Your task to perform on an android device: see creations saved in the google photos Image 0: 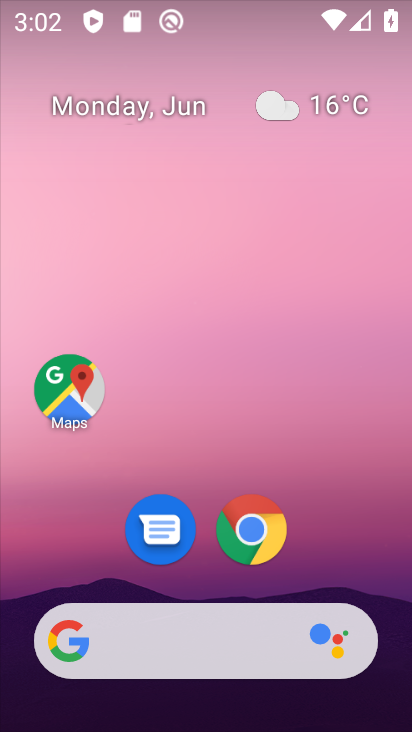
Step 0: click (222, 110)
Your task to perform on an android device: see creations saved in the google photos Image 1: 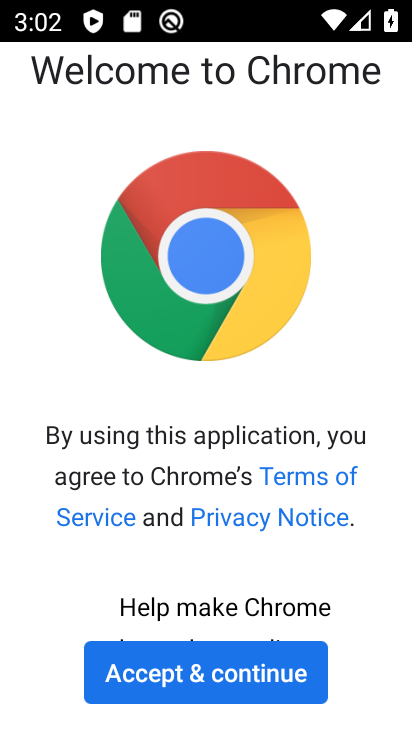
Step 1: click (207, 698)
Your task to perform on an android device: see creations saved in the google photos Image 2: 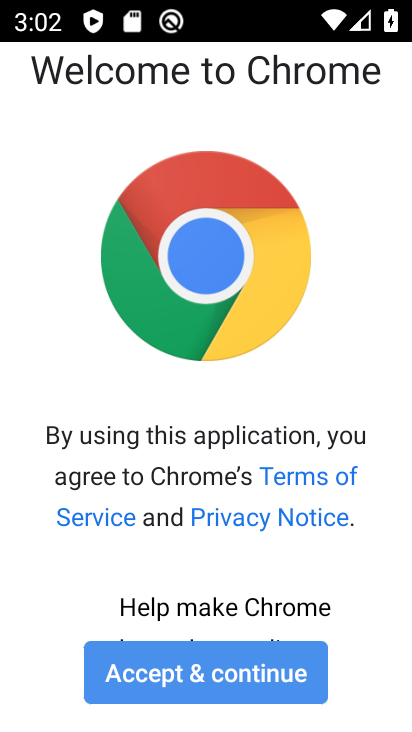
Step 2: click (206, 687)
Your task to perform on an android device: see creations saved in the google photos Image 3: 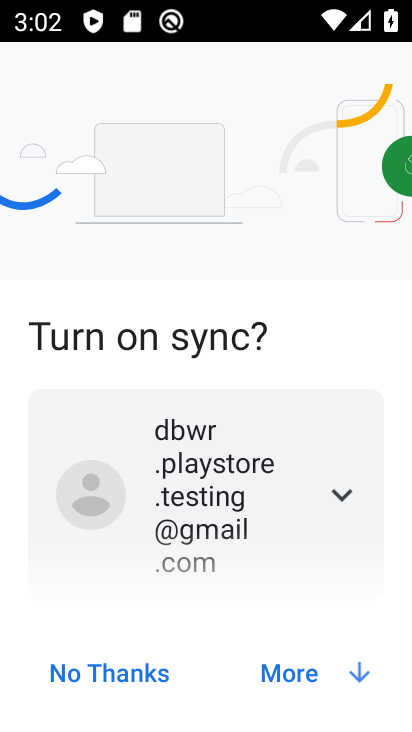
Step 3: click (207, 688)
Your task to perform on an android device: see creations saved in the google photos Image 4: 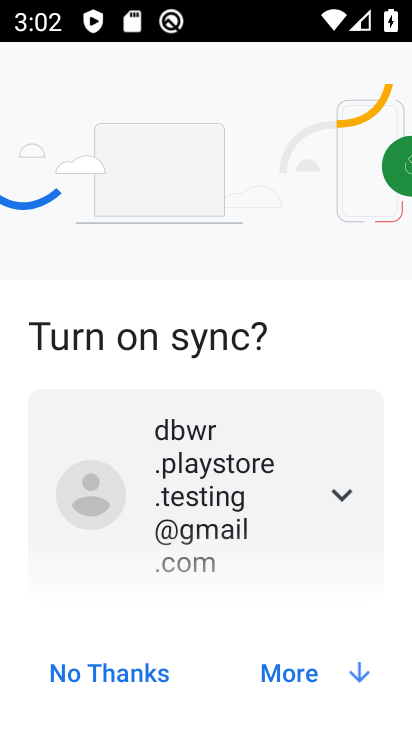
Step 4: click (212, 680)
Your task to perform on an android device: see creations saved in the google photos Image 5: 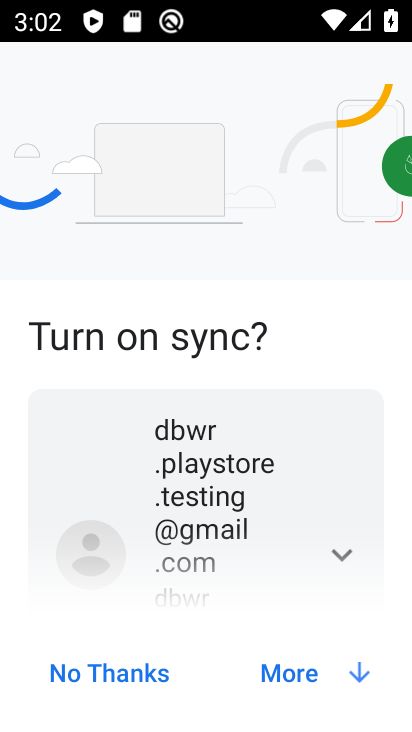
Step 5: press back button
Your task to perform on an android device: see creations saved in the google photos Image 6: 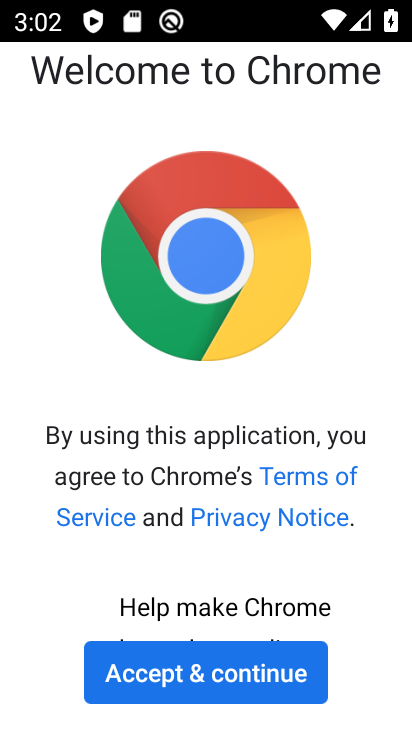
Step 6: press back button
Your task to perform on an android device: see creations saved in the google photos Image 7: 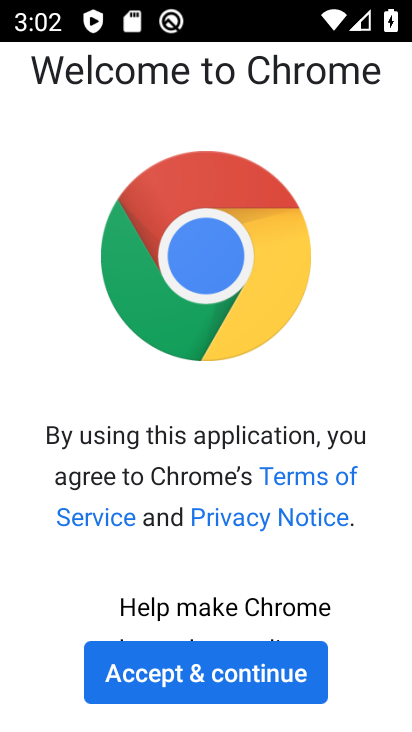
Step 7: press back button
Your task to perform on an android device: see creations saved in the google photos Image 8: 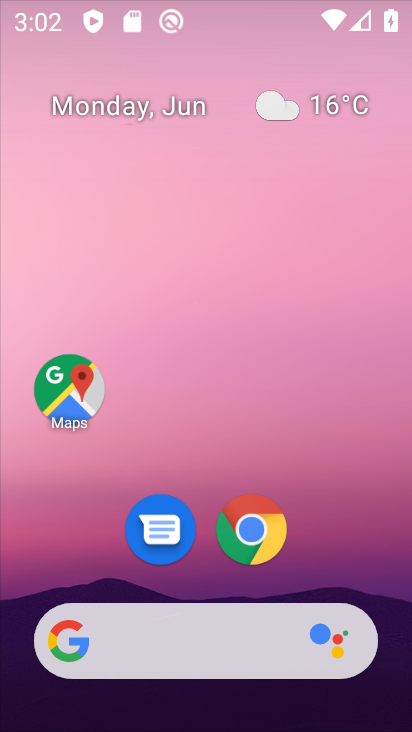
Step 8: press back button
Your task to perform on an android device: see creations saved in the google photos Image 9: 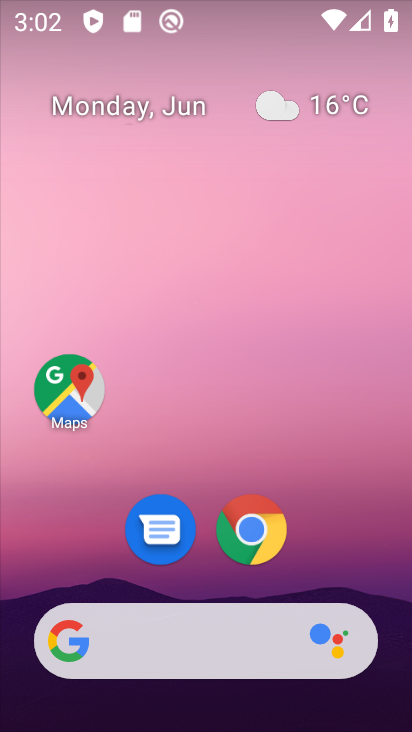
Step 9: press home button
Your task to perform on an android device: see creations saved in the google photos Image 10: 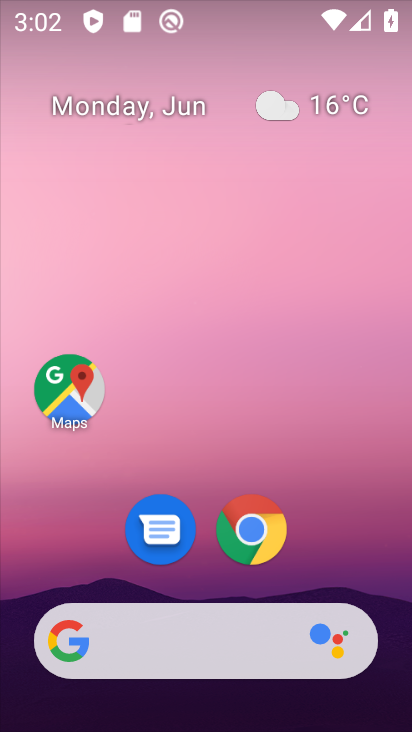
Step 10: press home button
Your task to perform on an android device: see creations saved in the google photos Image 11: 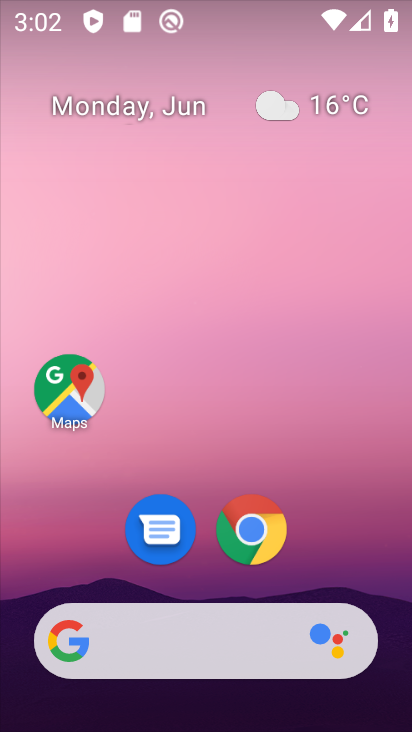
Step 11: drag from (172, 688) to (172, 204)
Your task to perform on an android device: see creations saved in the google photos Image 12: 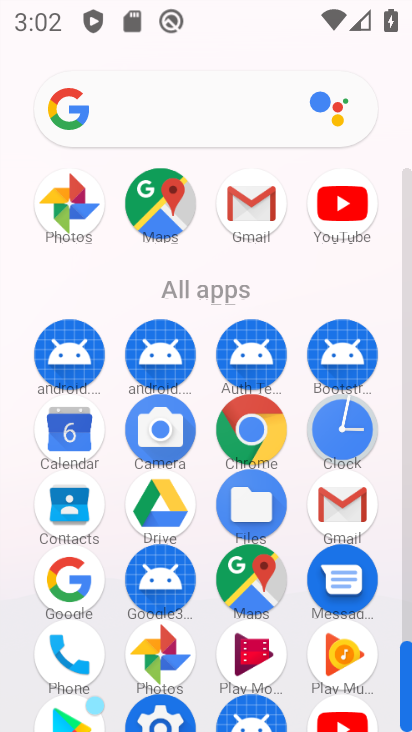
Step 12: drag from (236, 731) to (204, 177)
Your task to perform on an android device: see creations saved in the google photos Image 13: 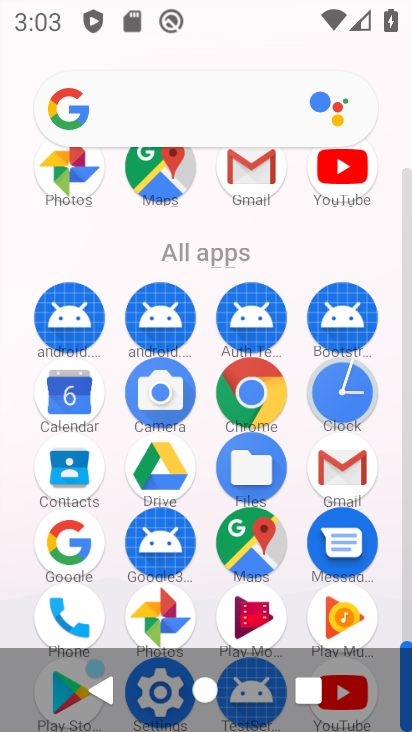
Step 13: drag from (328, 361) to (328, 203)
Your task to perform on an android device: see creations saved in the google photos Image 14: 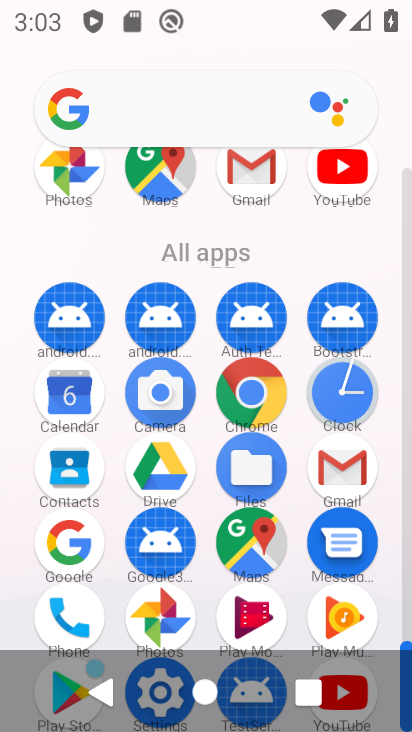
Step 14: click (169, 607)
Your task to perform on an android device: see creations saved in the google photos Image 15: 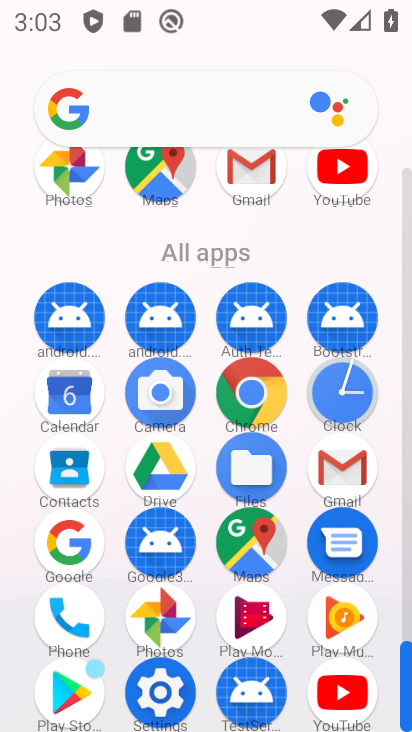
Step 15: click (169, 606)
Your task to perform on an android device: see creations saved in the google photos Image 16: 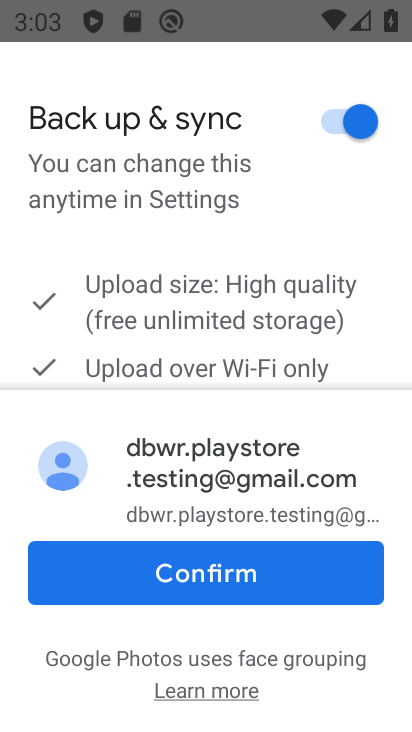
Step 16: click (210, 548)
Your task to perform on an android device: see creations saved in the google photos Image 17: 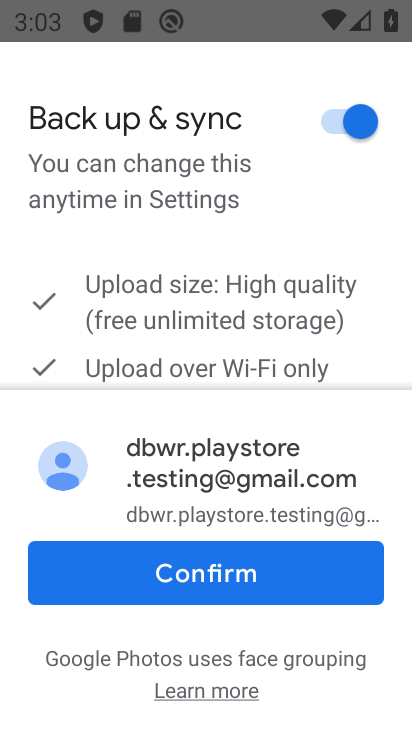
Step 17: click (209, 561)
Your task to perform on an android device: see creations saved in the google photos Image 18: 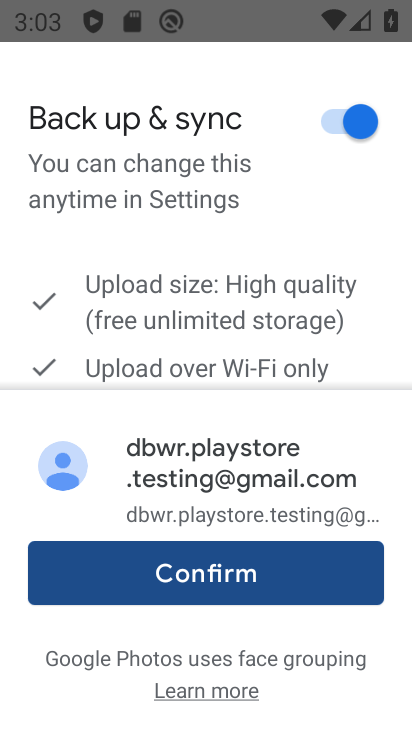
Step 18: click (209, 561)
Your task to perform on an android device: see creations saved in the google photos Image 19: 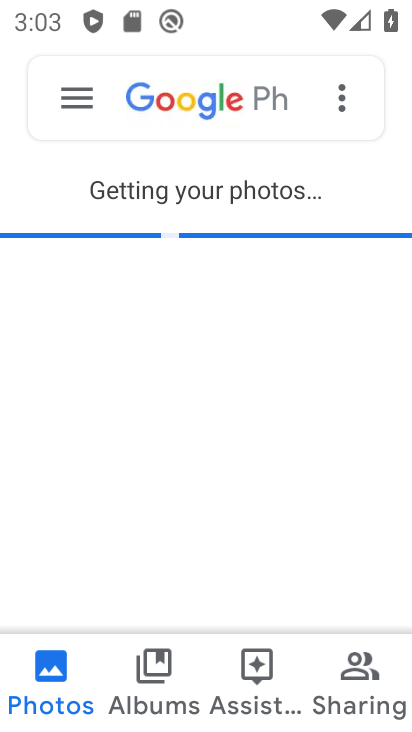
Step 19: click (210, 562)
Your task to perform on an android device: see creations saved in the google photos Image 20: 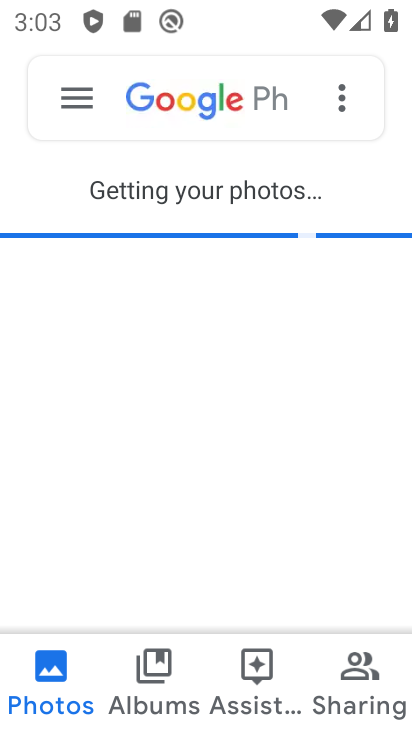
Step 20: click (209, 564)
Your task to perform on an android device: see creations saved in the google photos Image 21: 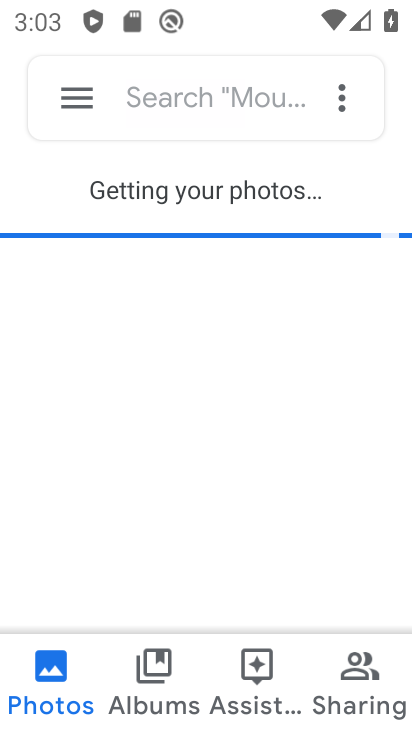
Step 21: click (86, 103)
Your task to perform on an android device: see creations saved in the google photos Image 22: 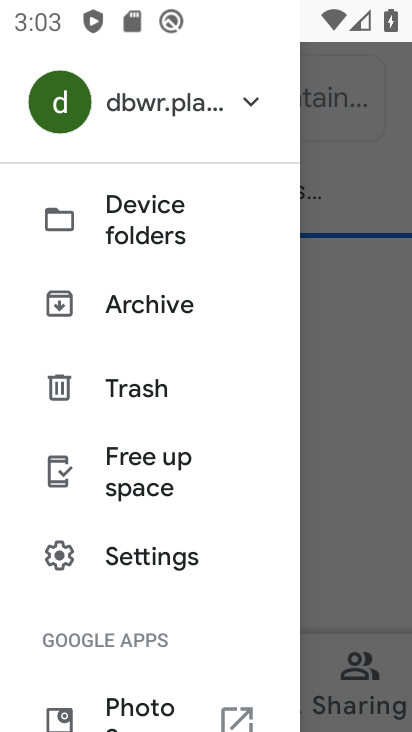
Step 22: click (385, 330)
Your task to perform on an android device: see creations saved in the google photos Image 23: 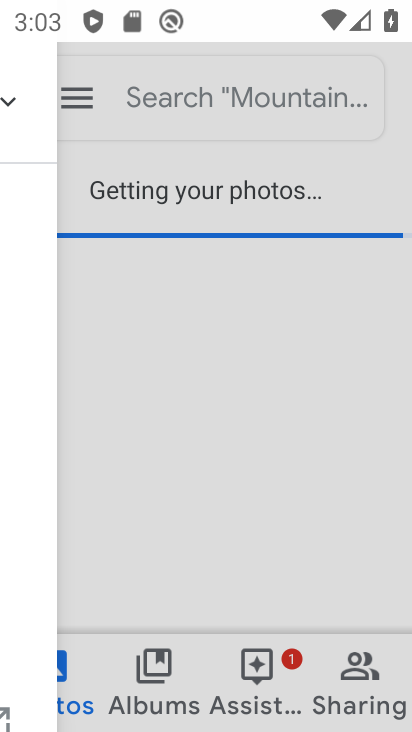
Step 23: click (368, 332)
Your task to perform on an android device: see creations saved in the google photos Image 24: 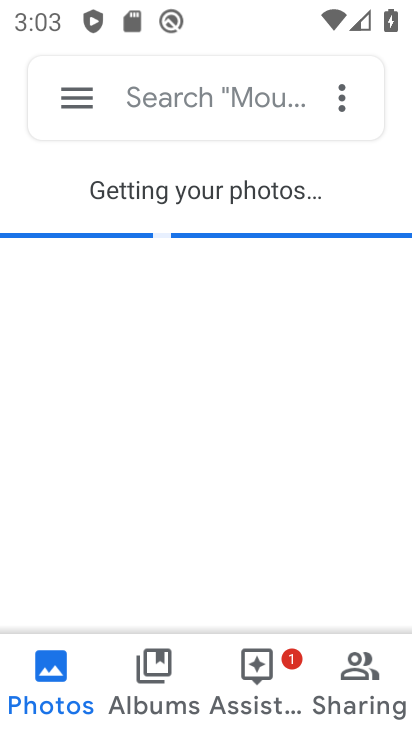
Step 24: task complete